Your task to perform on an android device: open app "Roku - Official Remote Control" (install if not already installed) Image 0: 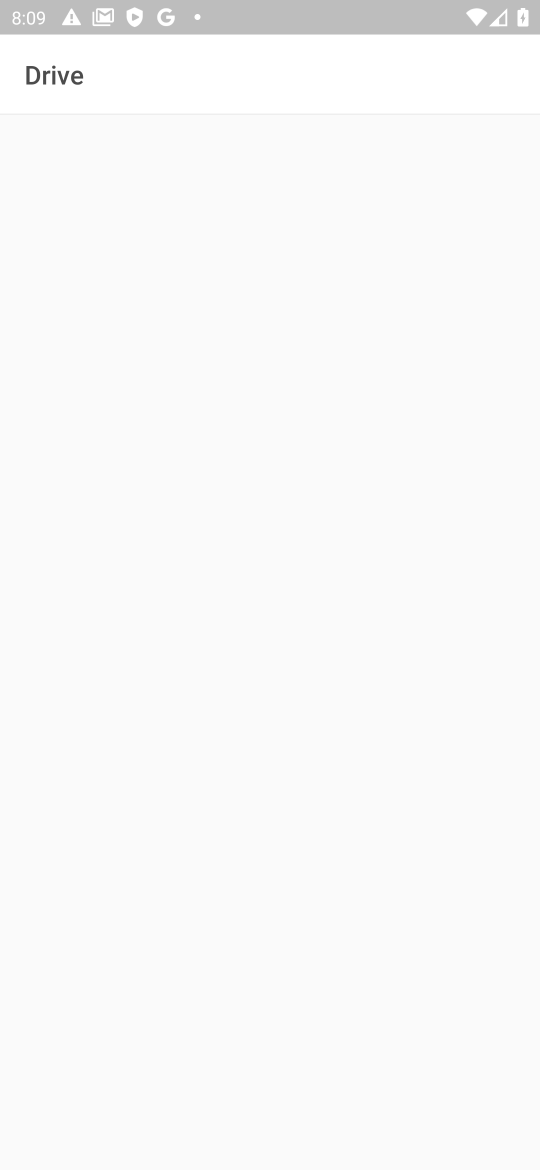
Step 0: press home button
Your task to perform on an android device: open app "Roku - Official Remote Control" (install if not already installed) Image 1: 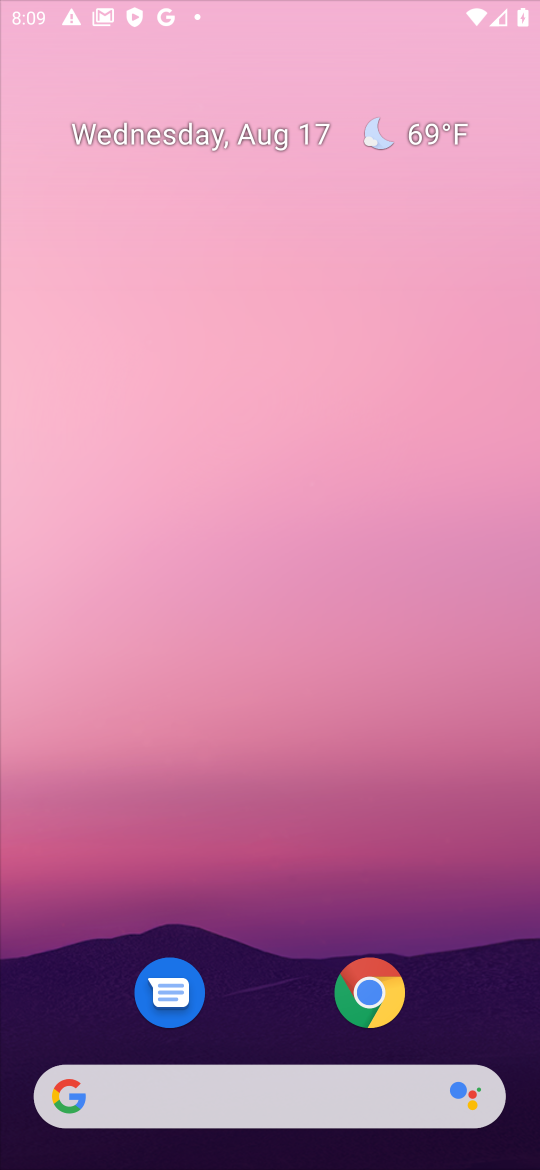
Step 1: drag from (501, 972) to (173, 31)
Your task to perform on an android device: open app "Roku - Official Remote Control" (install if not already installed) Image 2: 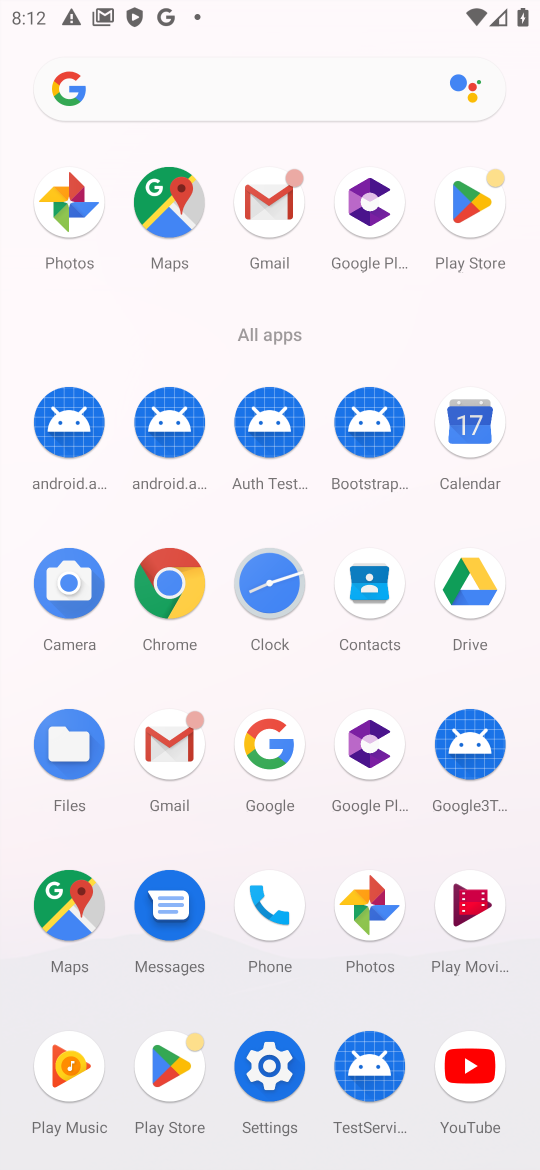
Step 2: click (272, 741)
Your task to perform on an android device: open app "Roku - Official Remote Control" (install if not already installed) Image 3: 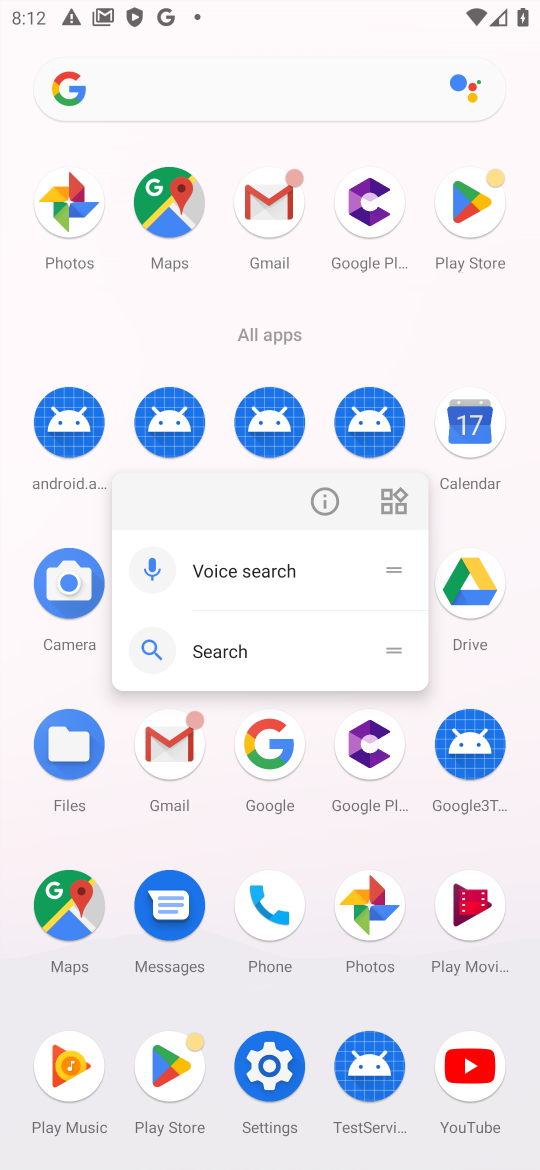
Step 3: click (149, 1071)
Your task to perform on an android device: open app "Roku - Official Remote Control" (install if not already installed) Image 4: 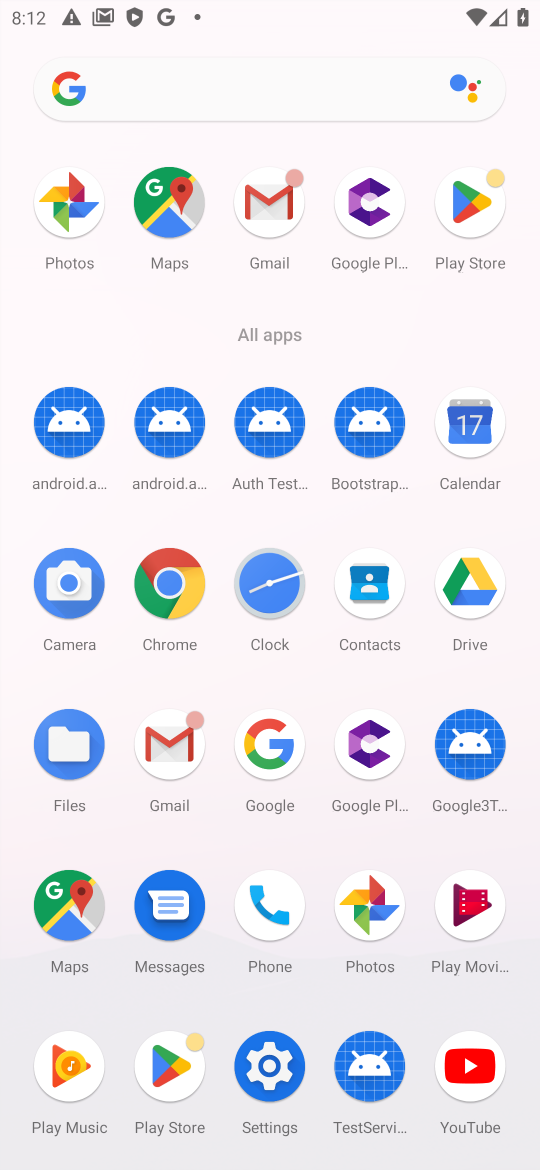
Step 4: click (170, 1075)
Your task to perform on an android device: open app "Roku - Official Remote Control" (install if not already installed) Image 5: 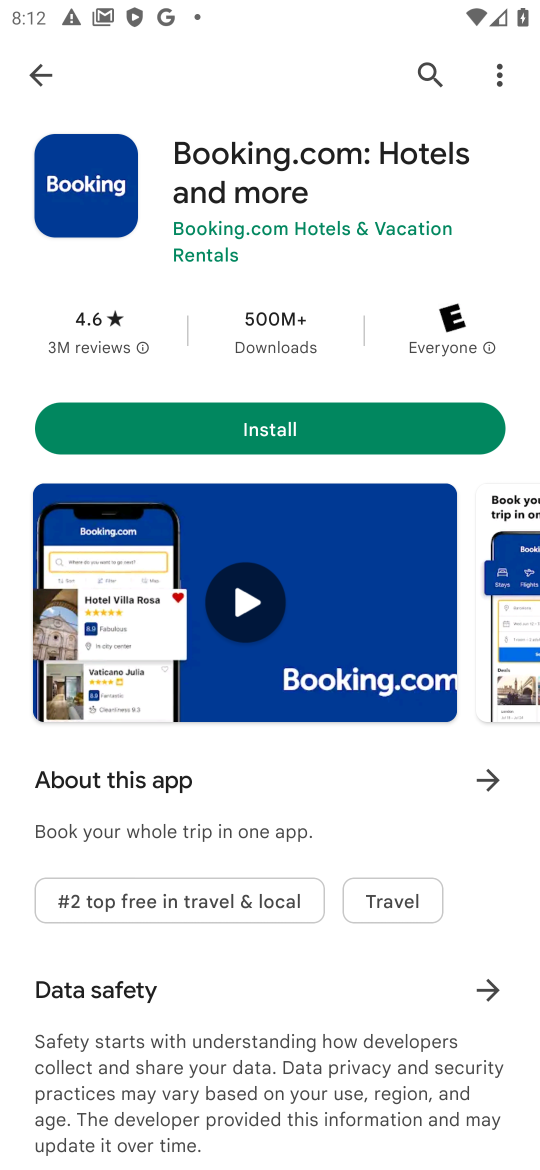
Step 5: press back button
Your task to perform on an android device: open app "Roku - Official Remote Control" (install if not already installed) Image 6: 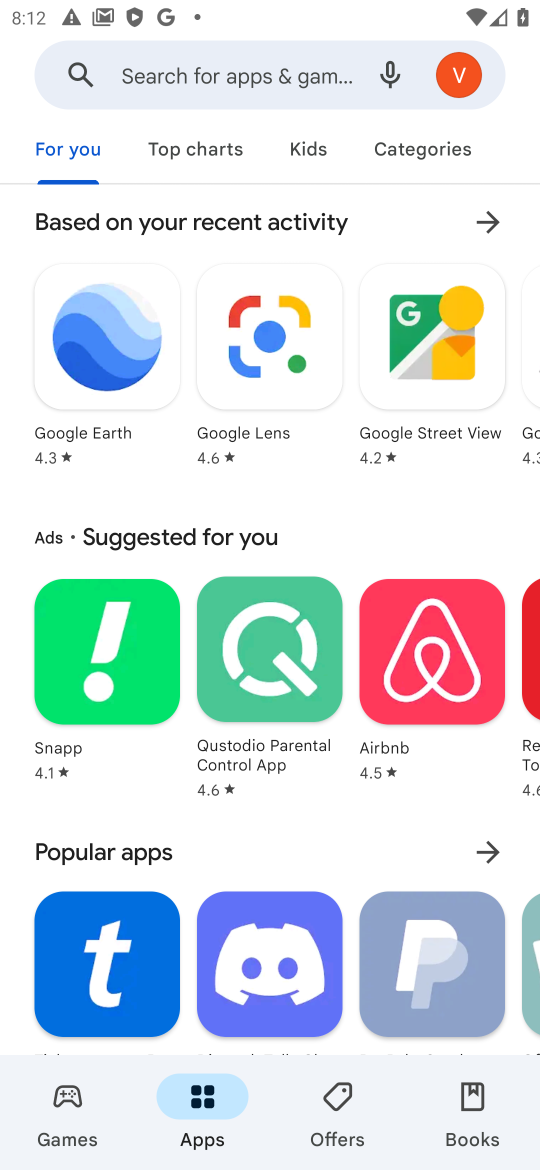
Step 6: click (173, 69)
Your task to perform on an android device: open app "Roku - Official Remote Control" (install if not already installed) Image 7: 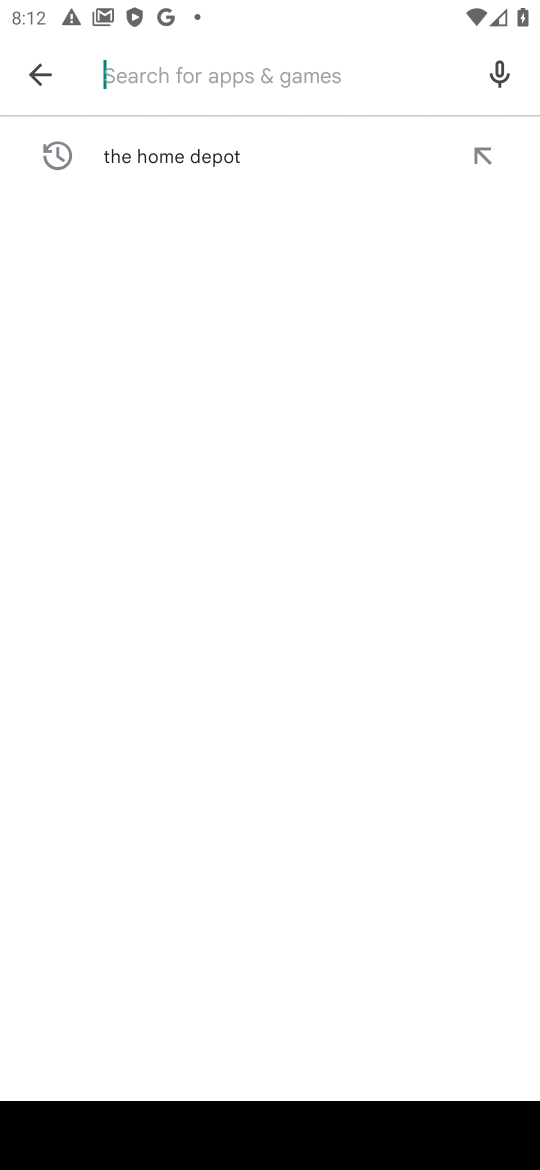
Step 7: type "Roku - Official Remote Control"
Your task to perform on an android device: open app "Roku - Official Remote Control" (install if not already installed) Image 8: 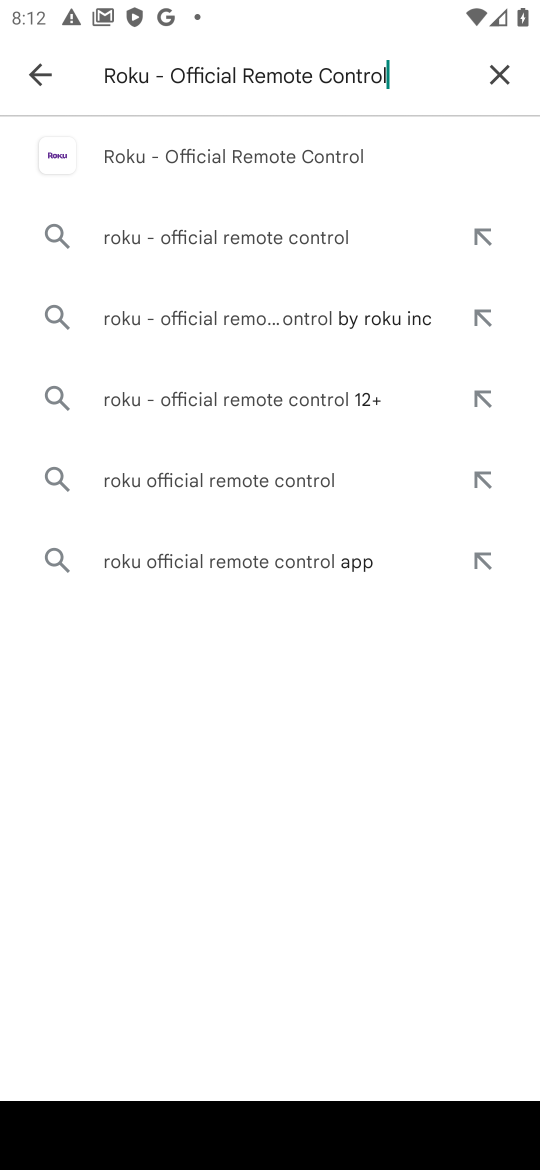
Step 8: click (173, 160)
Your task to perform on an android device: open app "Roku - Official Remote Control" (install if not already installed) Image 9: 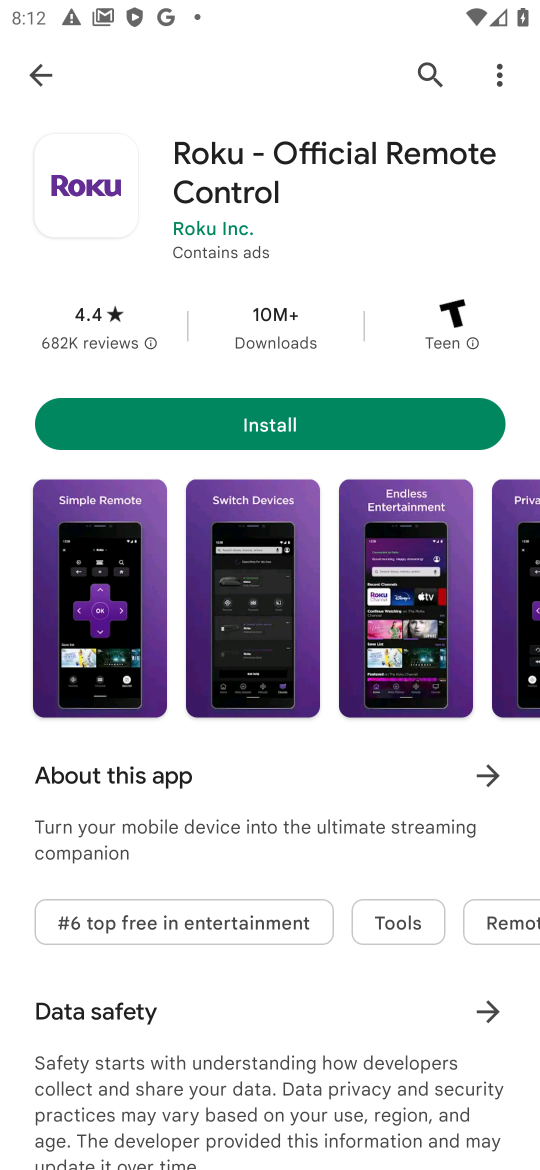
Step 9: task complete